Your task to perform on an android device: turn on translation in the chrome app Image 0: 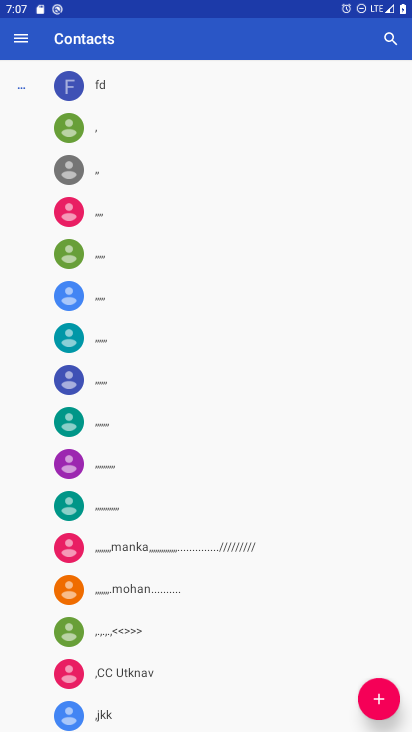
Step 0: press home button
Your task to perform on an android device: turn on translation in the chrome app Image 1: 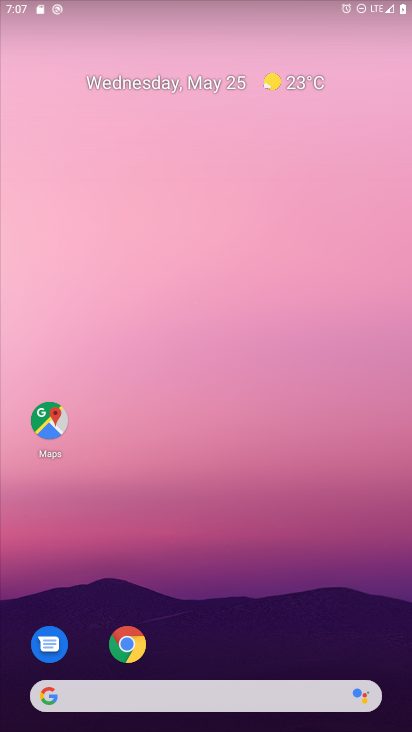
Step 1: drag from (356, 619) to (269, 9)
Your task to perform on an android device: turn on translation in the chrome app Image 2: 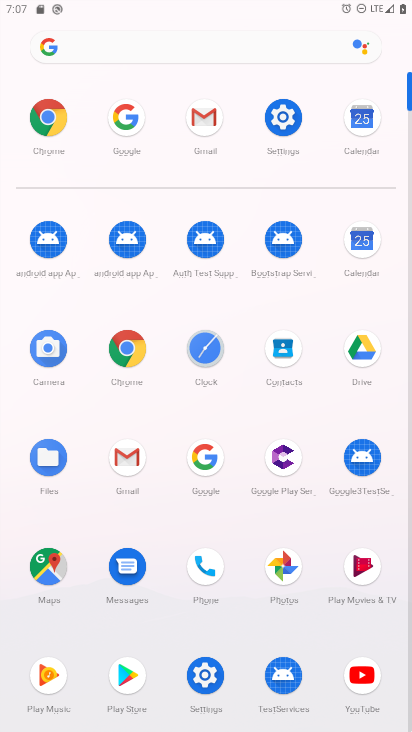
Step 2: click (51, 116)
Your task to perform on an android device: turn on translation in the chrome app Image 3: 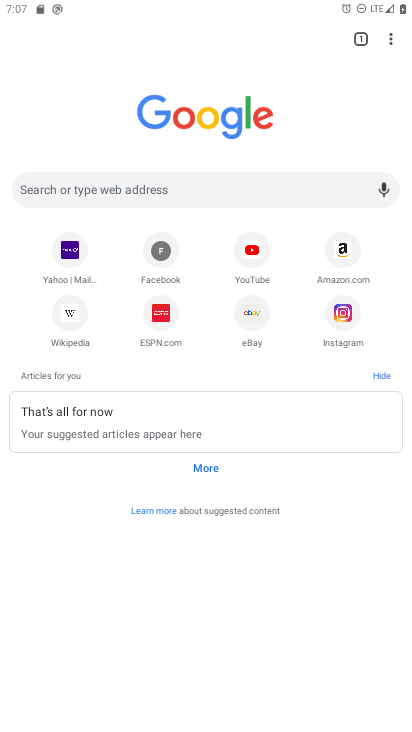
Step 3: click (394, 38)
Your task to perform on an android device: turn on translation in the chrome app Image 4: 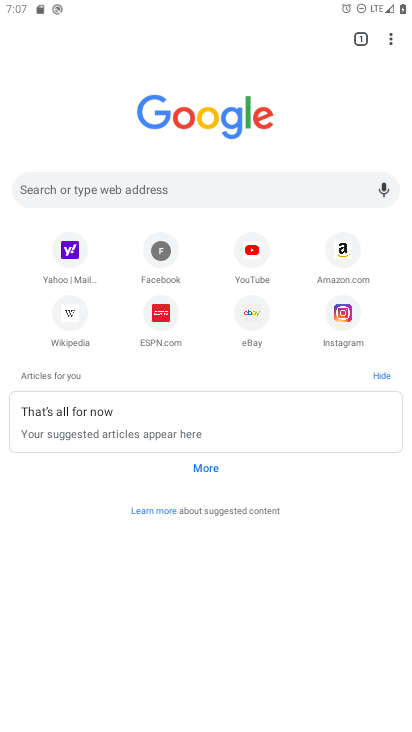
Step 4: click (386, 34)
Your task to perform on an android device: turn on translation in the chrome app Image 5: 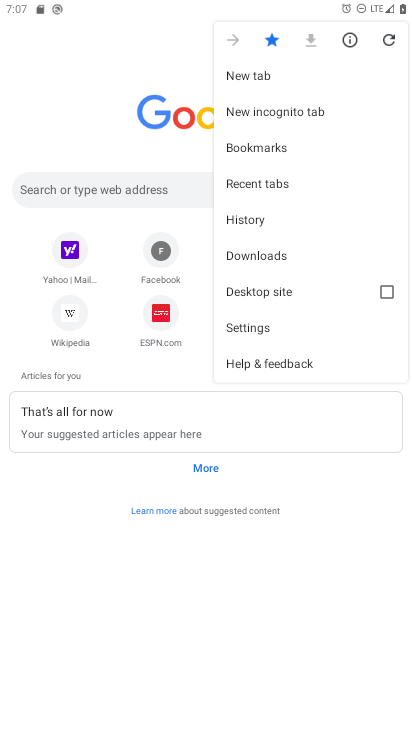
Step 5: click (262, 324)
Your task to perform on an android device: turn on translation in the chrome app Image 6: 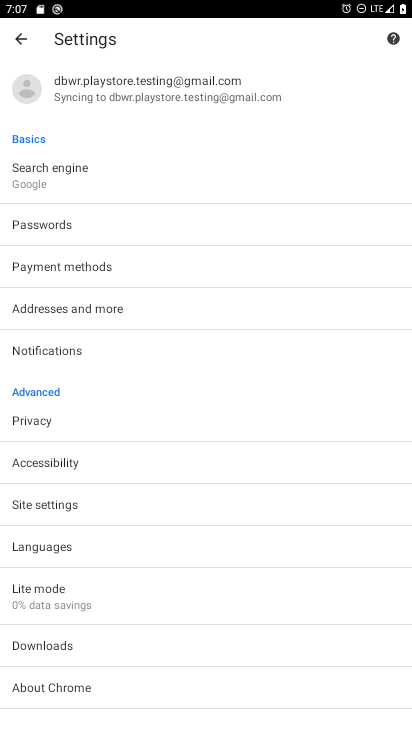
Step 6: click (108, 554)
Your task to perform on an android device: turn on translation in the chrome app Image 7: 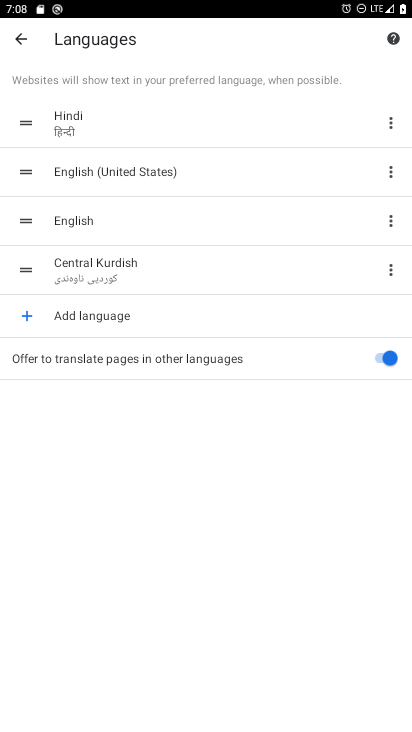
Step 7: task complete